Your task to perform on an android device: Search for duracell triple a on amazon.com, select the first entry, and add it to the cart. Image 0: 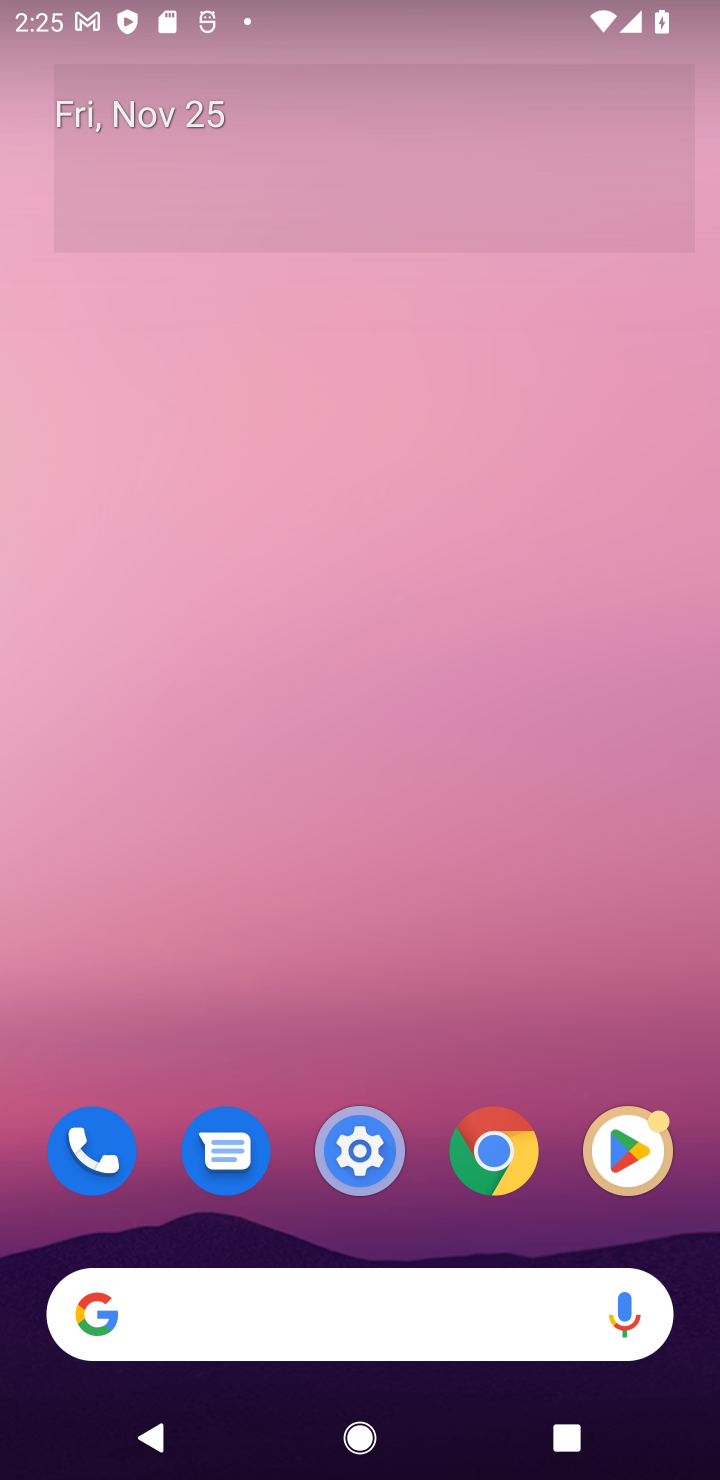
Step 0: click (461, 1282)
Your task to perform on an android device: Search for duracell triple a on amazon.com, select the first entry, and add it to the cart. Image 1: 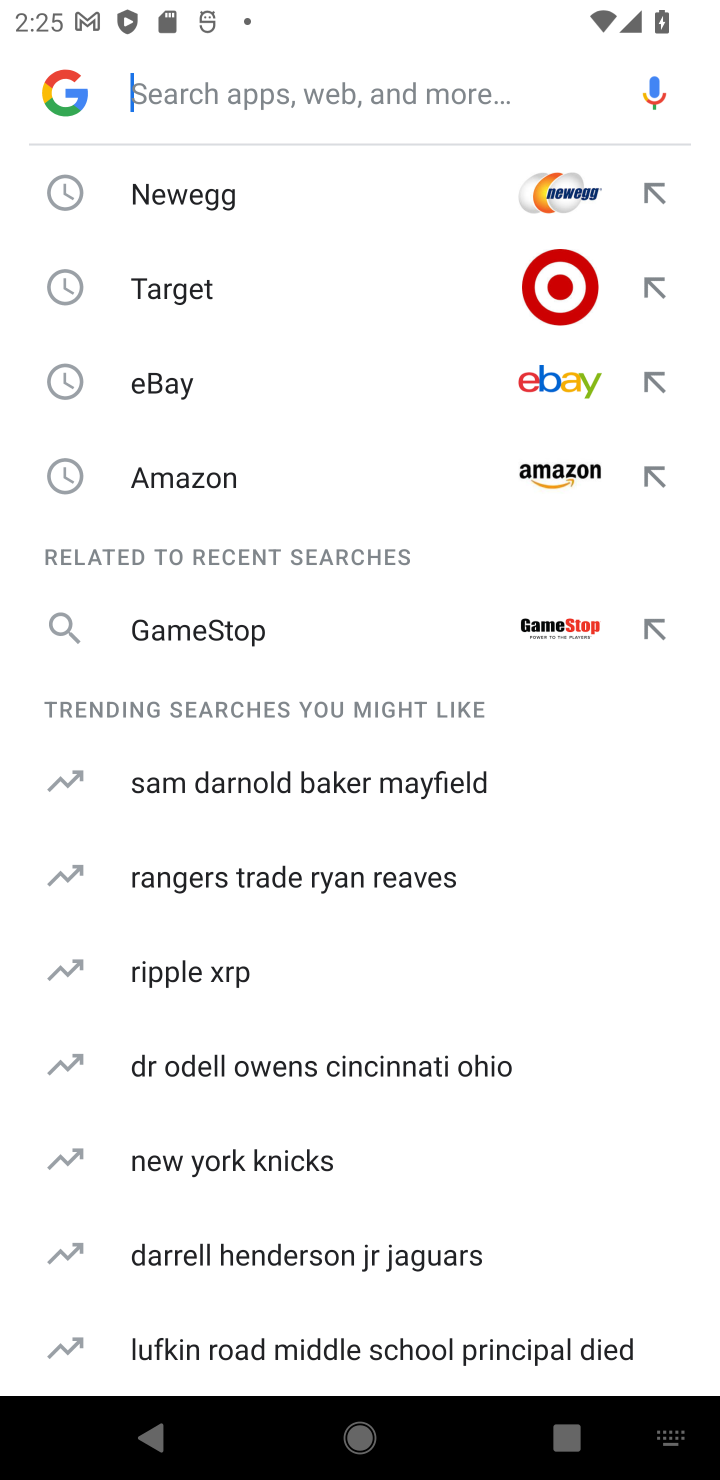
Step 1: click (236, 495)
Your task to perform on an android device: Search for duracell triple a on amazon.com, select the first entry, and add it to the cart. Image 2: 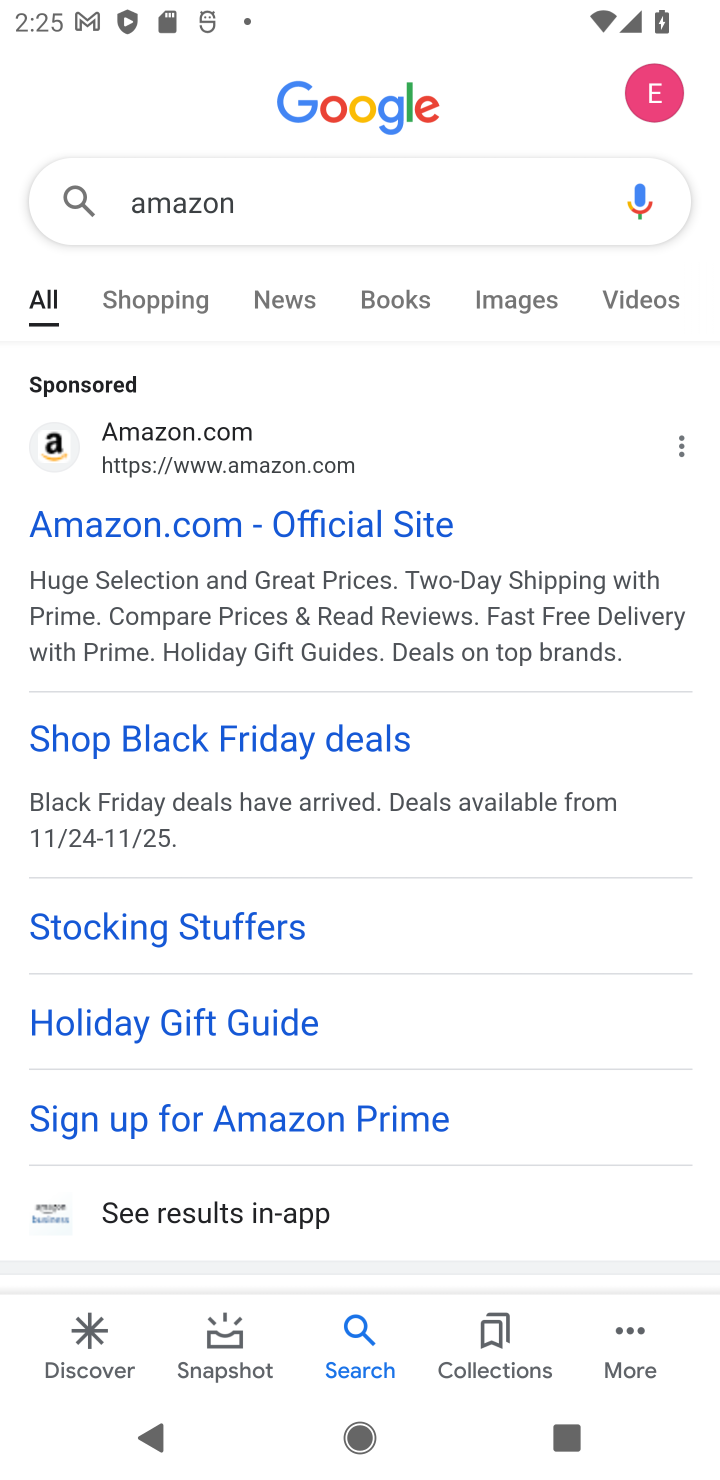
Step 2: click (291, 516)
Your task to perform on an android device: Search for duracell triple a on amazon.com, select the first entry, and add it to the cart. Image 3: 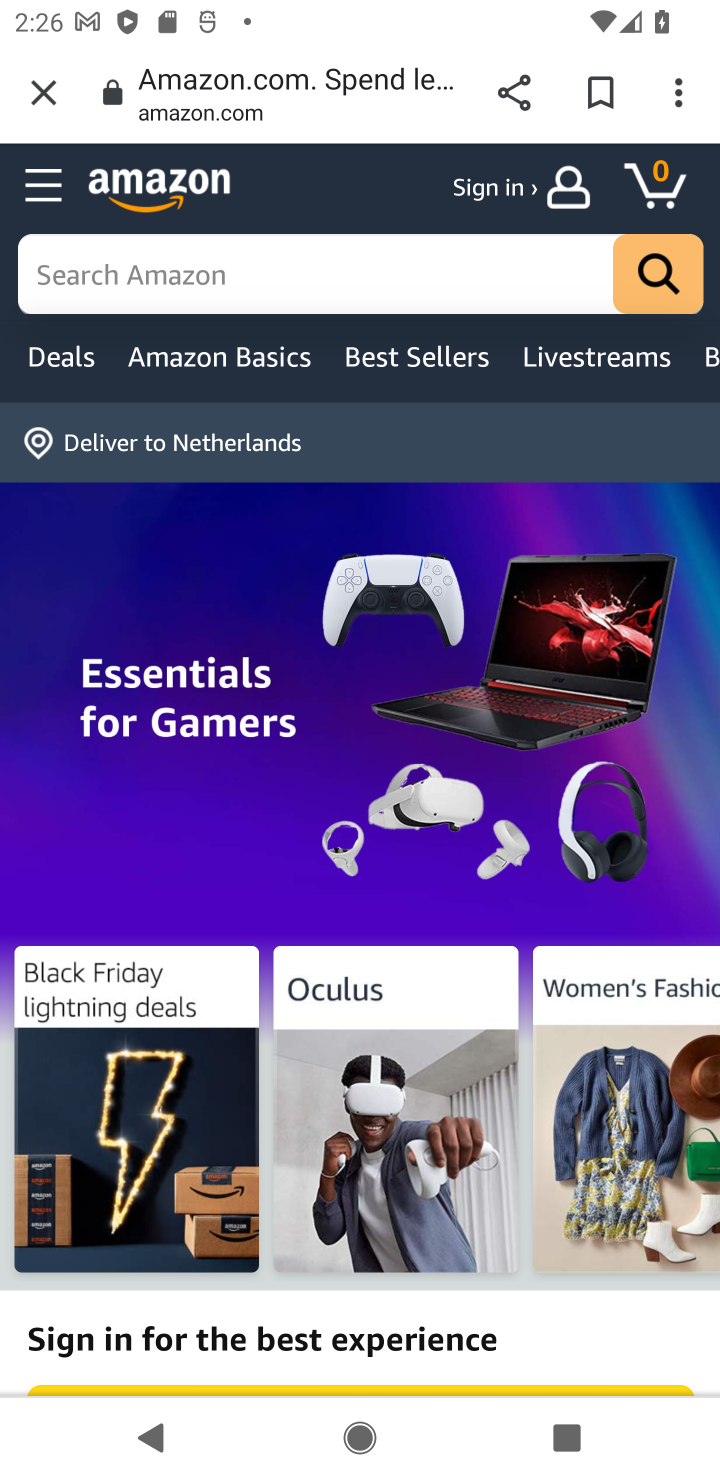
Step 3: task complete